Your task to perform on an android device: turn pop-ups on in chrome Image 0: 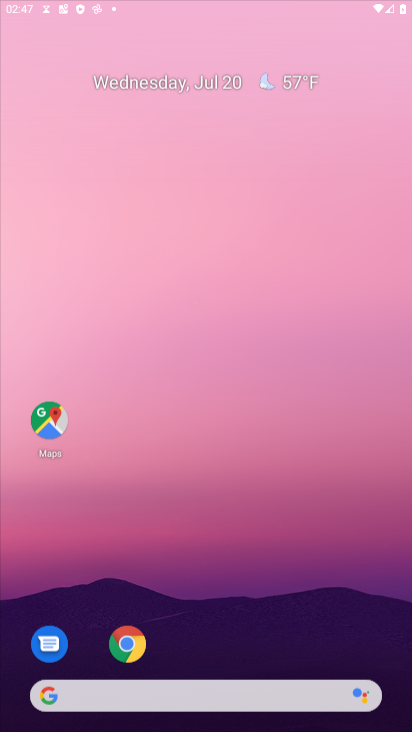
Step 0: press home button
Your task to perform on an android device: turn pop-ups on in chrome Image 1: 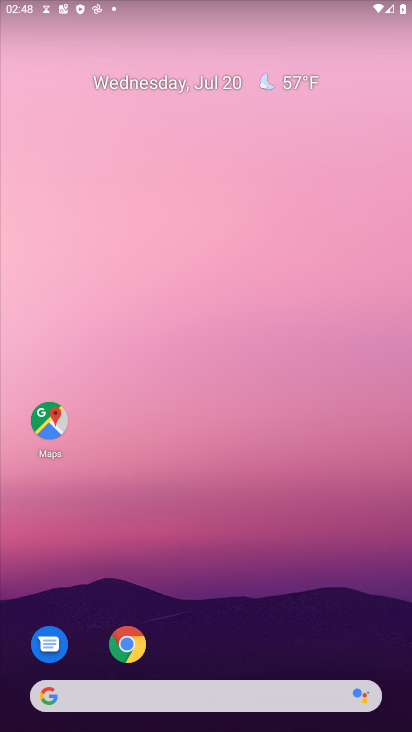
Step 1: drag from (234, 648) to (245, 0)
Your task to perform on an android device: turn pop-ups on in chrome Image 2: 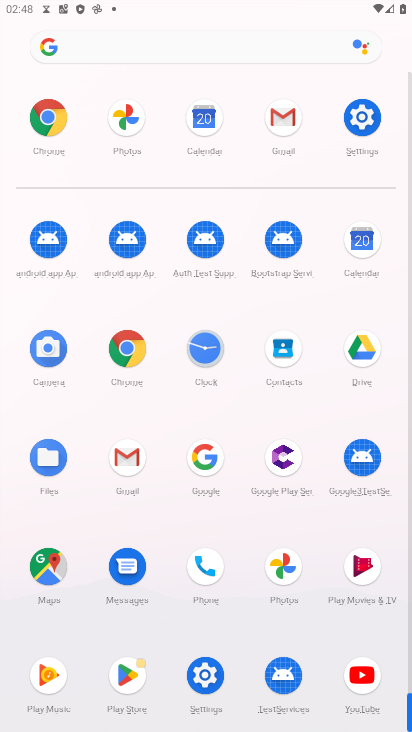
Step 2: click (43, 118)
Your task to perform on an android device: turn pop-ups on in chrome Image 3: 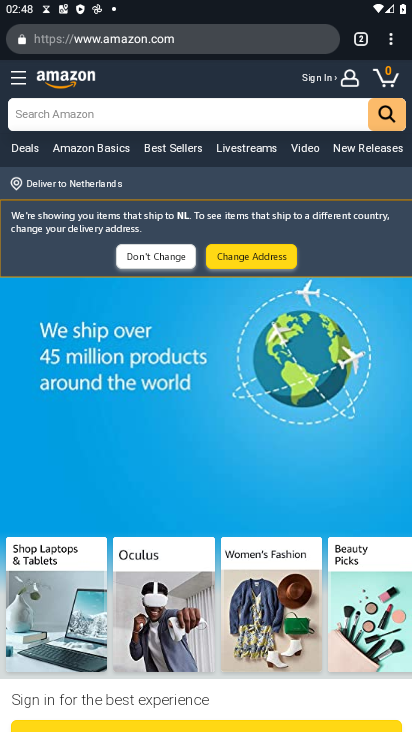
Step 3: drag from (386, 41) to (242, 475)
Your task to perform on an android device: turn pop-ups on in chrome Image 4: 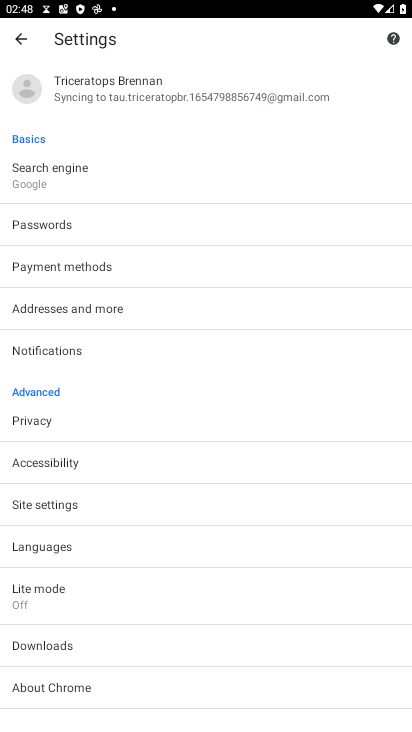
Step 4: click (56, 511)
Your task to perform on an android device: turn pop-ups on in chrome Image 5: 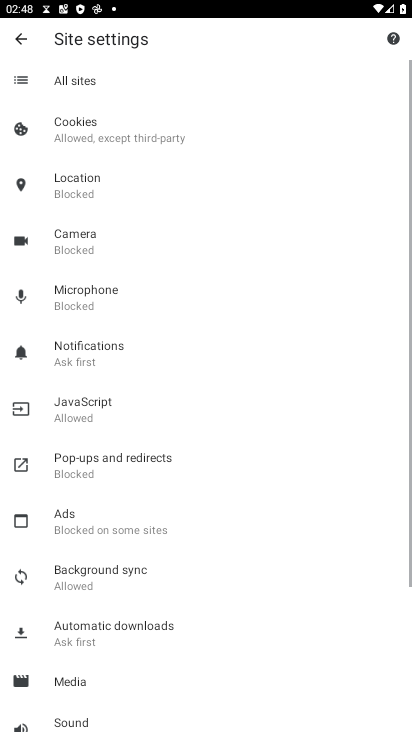
Step 5: click (78, 467)
Your task to perform on an android device: turn pop-ups on in chrome Image 6: 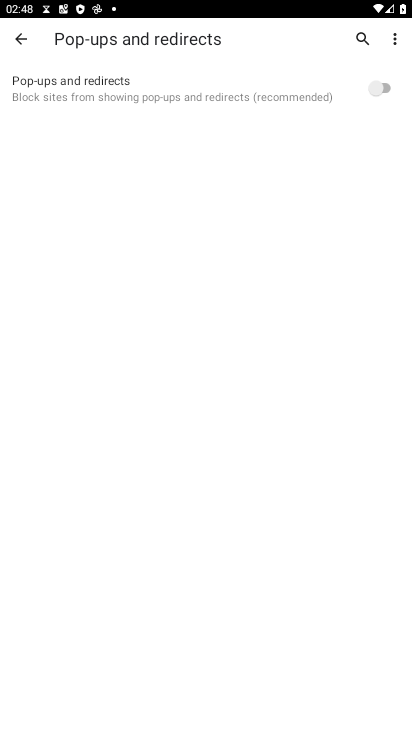
Step 6: click (383, 93)
Your task to perform on an android device: turn pop-ups on in chrome Image 7: 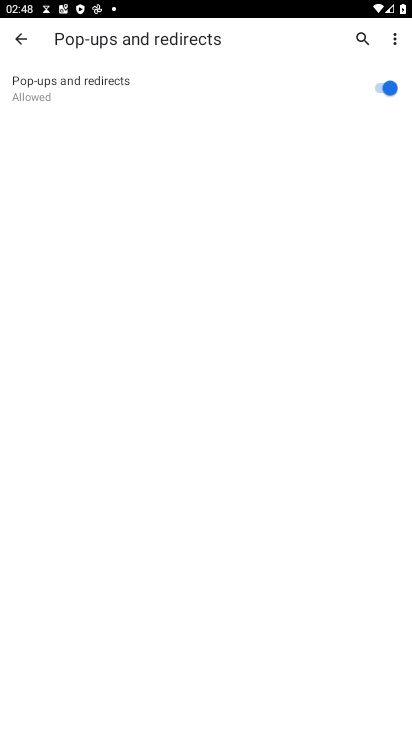
Step 7: task complete